Your task to perform on an android device: Go to eBay Image 0: 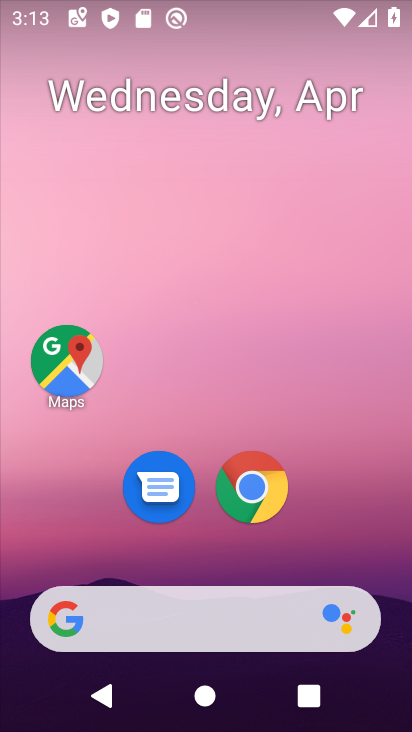
Step 0: click (243, 499)
Your task to perform on an android device: Go to eBay Image 1: 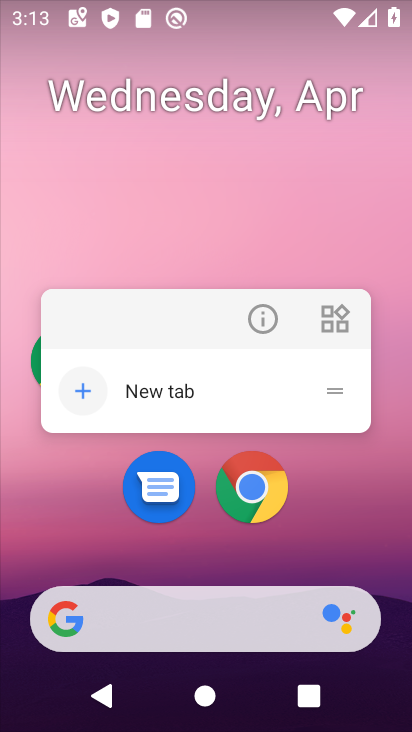
Step 1: click (242, 470)
Your task to perform on an android device: Go to eBay Image 2: 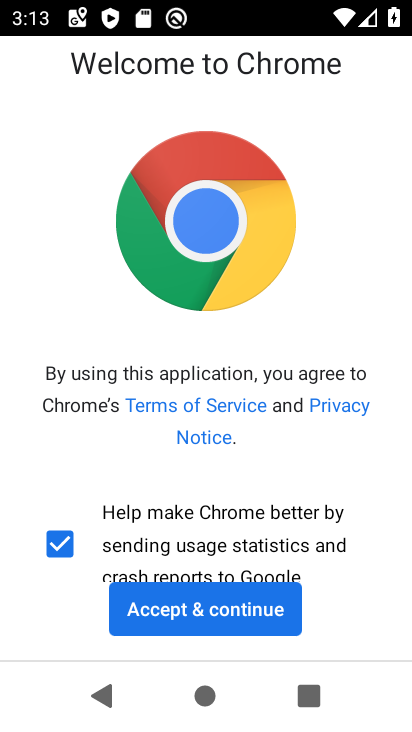
Step 2: click (202, 614)
Your task to perform on an android device: Go to eBay Image 3: 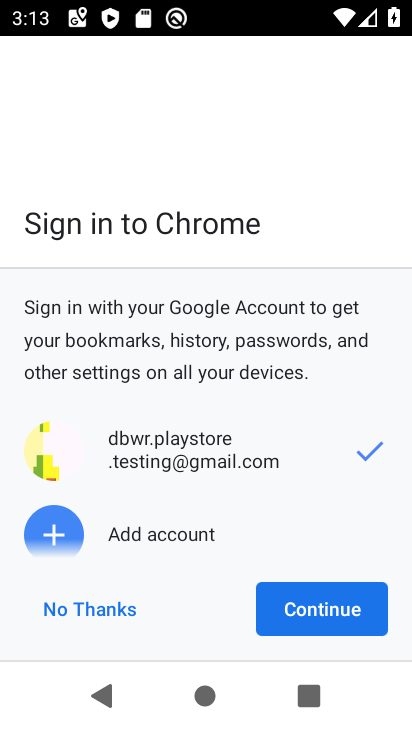
Step 3: click (360, 612)
Your task to perform on an android device: Go to eBay Image 4: 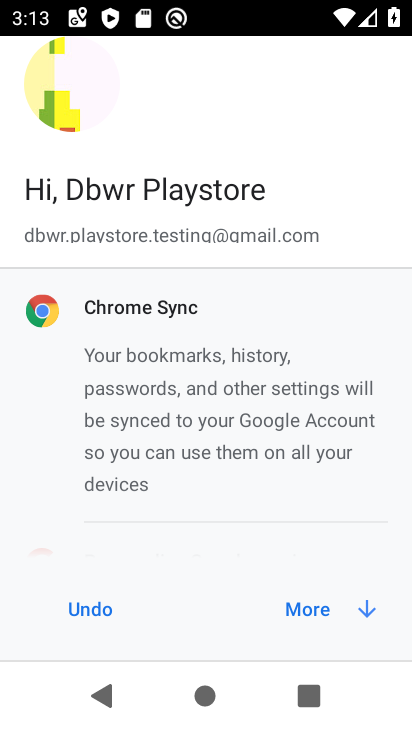
Step 4: click (360, 612)
Your task to perform on an android device: Go to eBay Image 5: 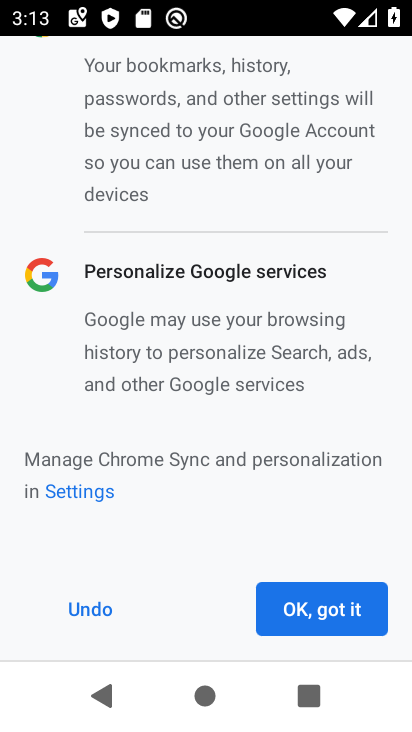
Step 5: click (360, 612)
Your task to perform on an android device: Go to eBay Image 6: 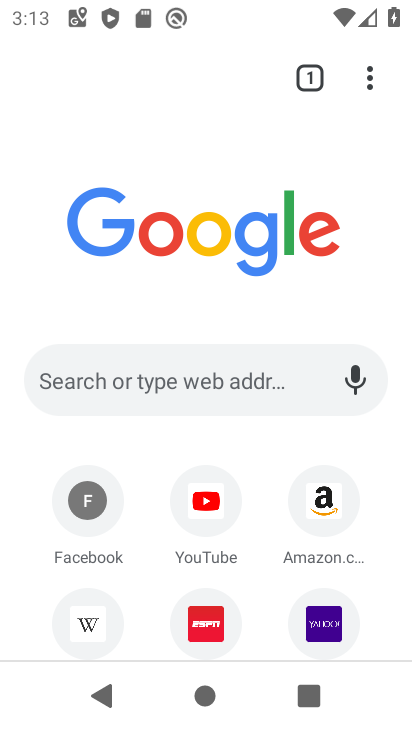
Step 6: drag from (382, 589) to (335, 314)
Your task to perform on an android device: Go to eBay Image 7: 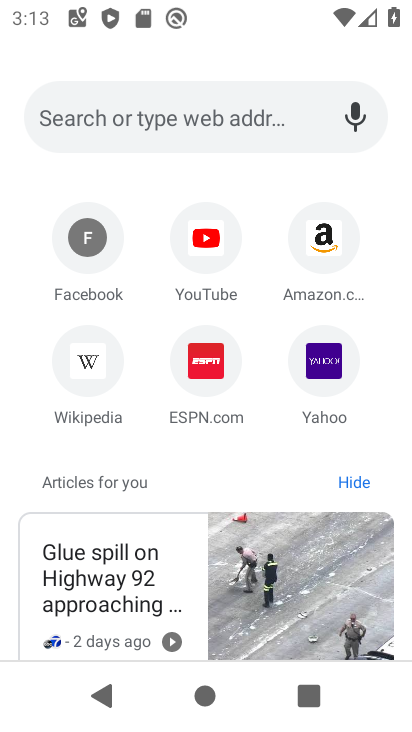
Step 7: click (272, 113)
Your task to perform on an android device: Go to eBay Image 8: 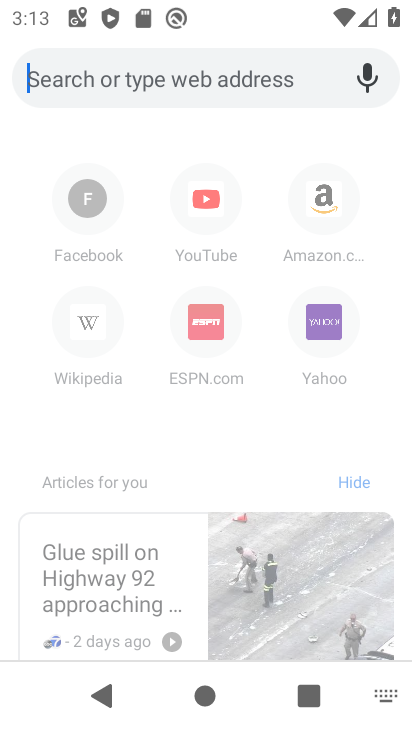
Step 8: click (272, 113)
Your task to perform on an android device: Go to eBay Image 9: 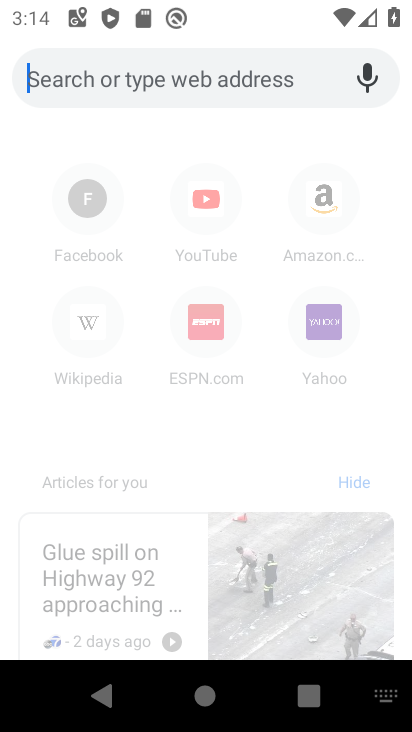
Step 9: type "eBay"
Your task to perform on an android device: Go to eBay Image 10: 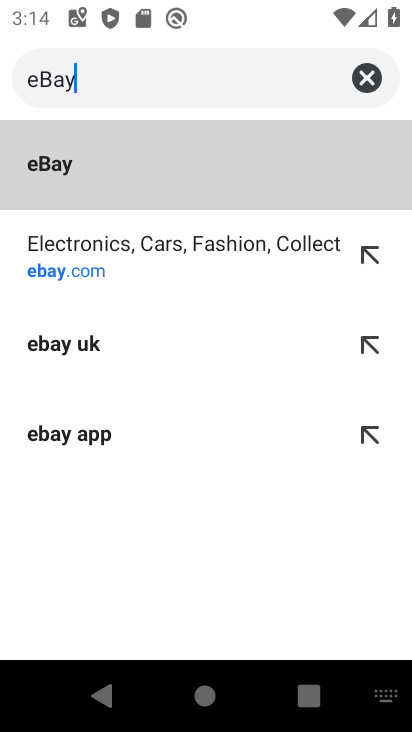
Step 10: click (129, 254)
Your task to perform on an android device: Go to eBay Image 11: 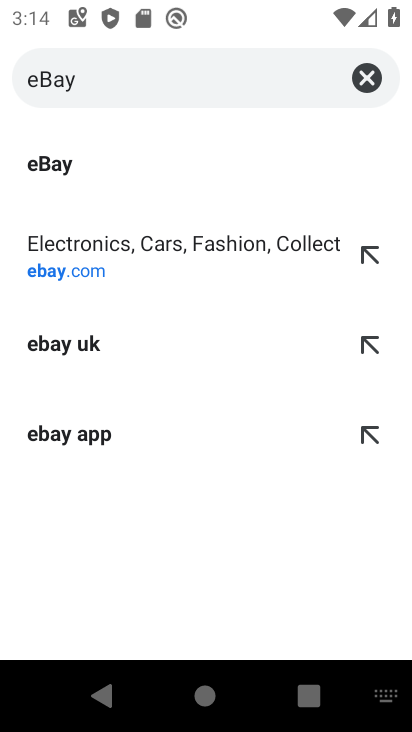
Step 11: click (160, 267)
Your task to perform on an android device: Go to eBay Image 12: 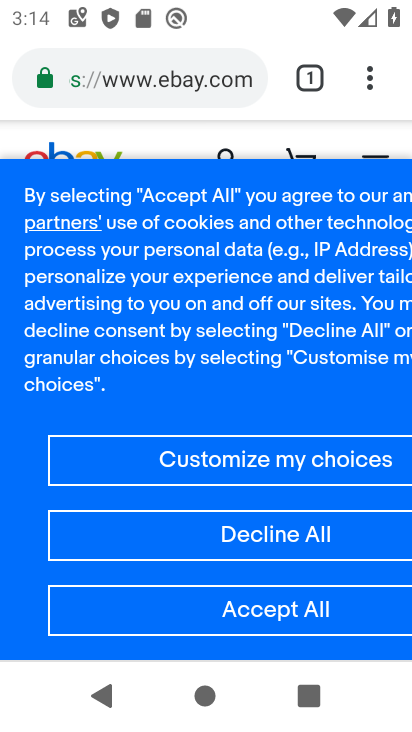
Step 12: task complete